Your task to perform on an android device: open app "McDonald's" (install if not already installed) and enter user name: "copes@yahoo.com" and password: "Rhenish" Image 0: 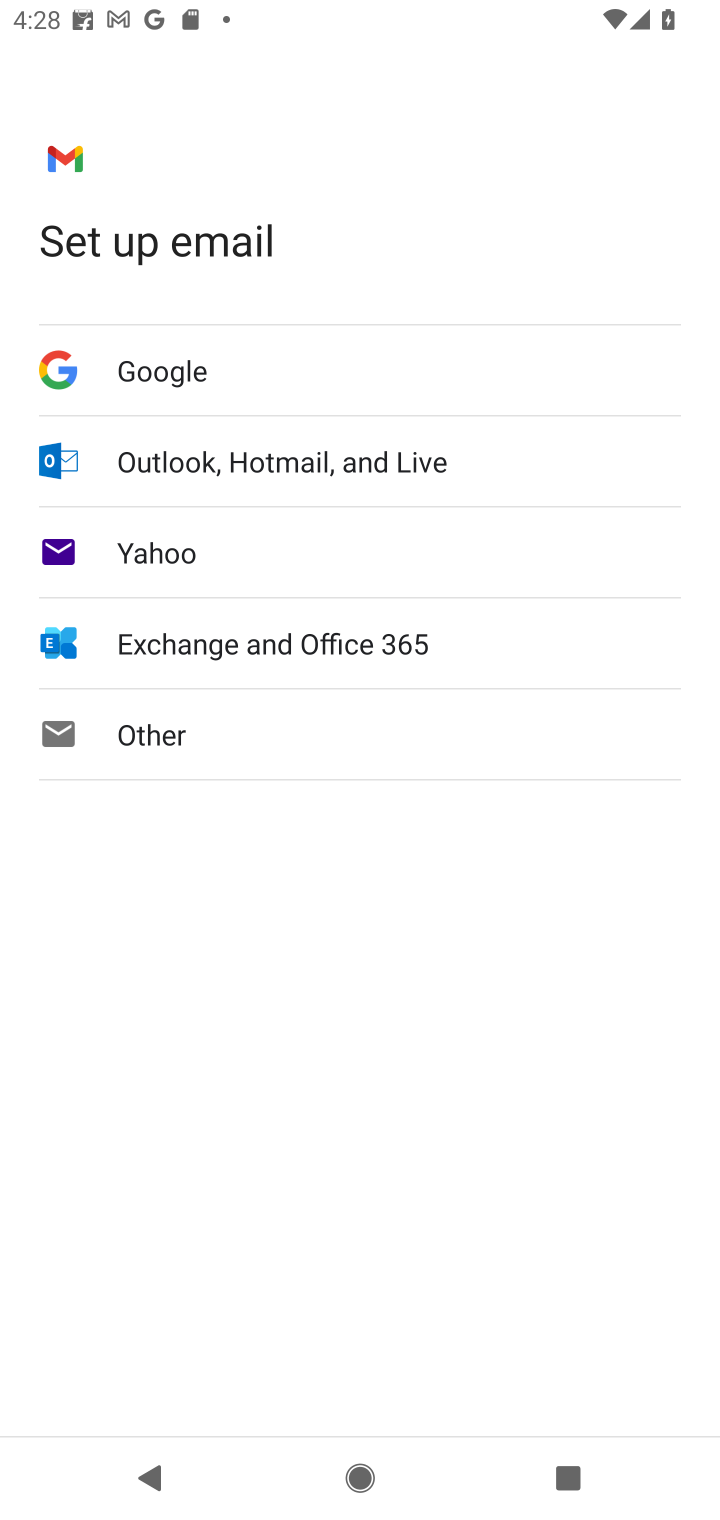
Step 0: press back button
Your task to perform on an android device: open app "McDonald's" (install if not already installed) and enter user name: "copes@yahoo.com" and password: "Rhenish" Image 1: 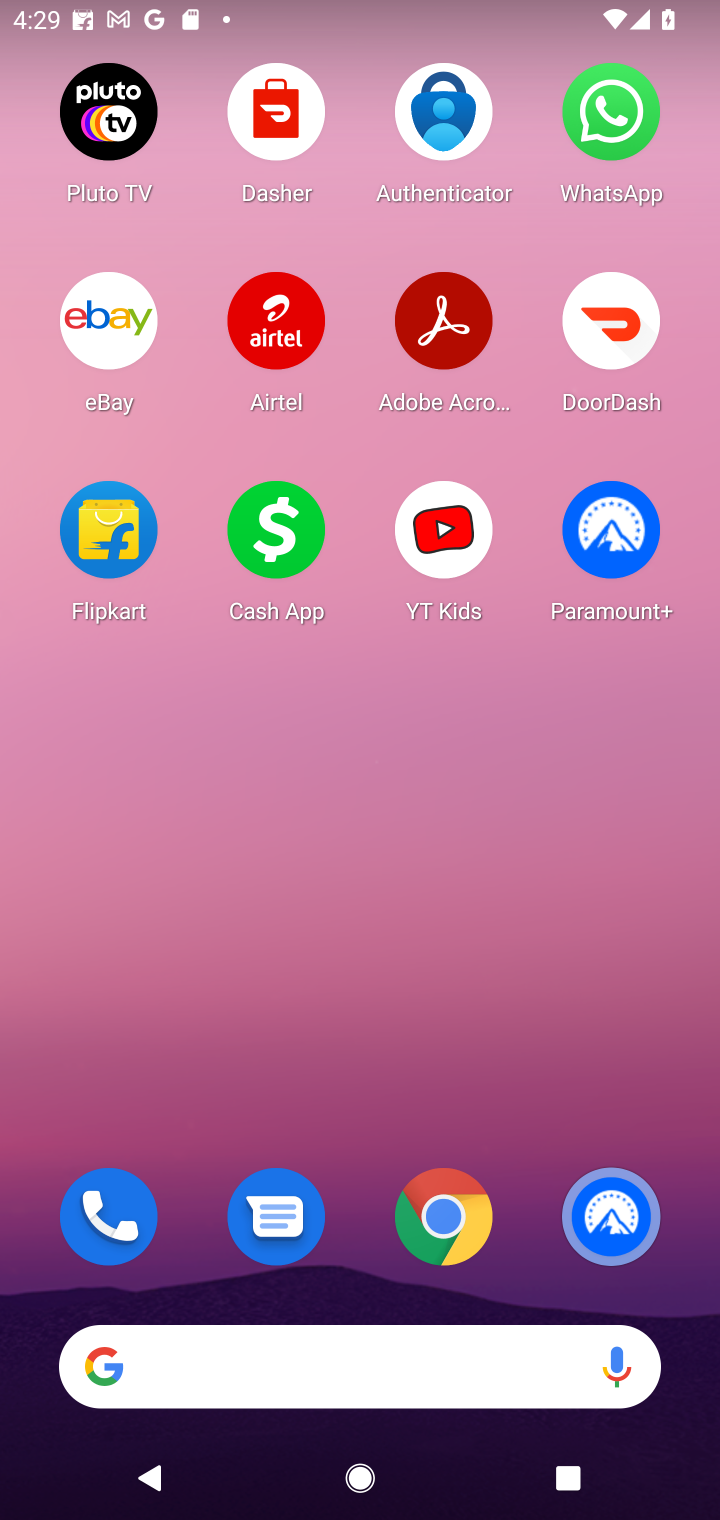
Step 1: drag from (344, 916) to (373, 131)
Your task to perform on an android device: open app "McDonald's" (install if not already installed) and enter user name: "copes@yahoo.com" and password: "Rhenish" Image 2: 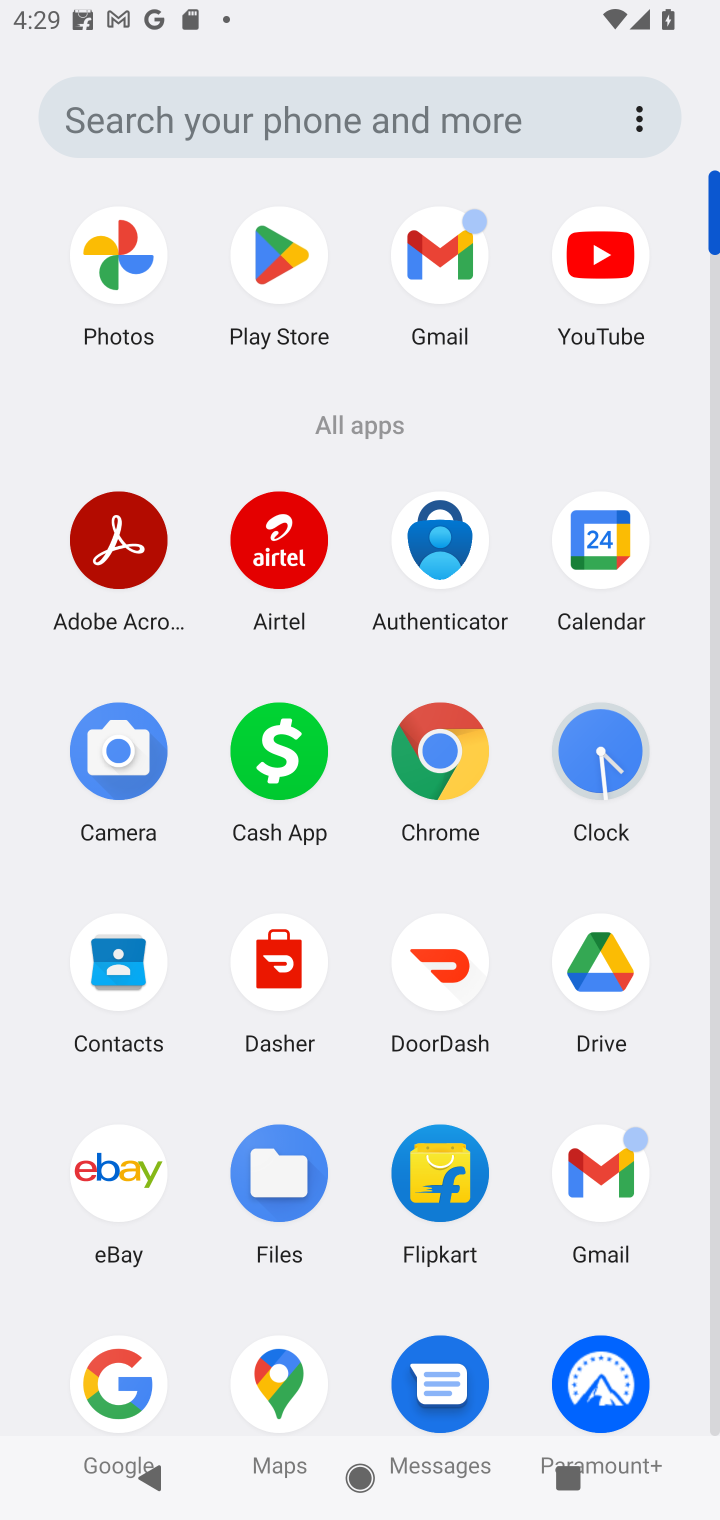
Step 2: click (291, 246)
Your task to perform on an android device: open app "McDonald's" (install if not already installed) and enter user name: "copes@yahoo.com" and password: "Rhenish" Image 3: 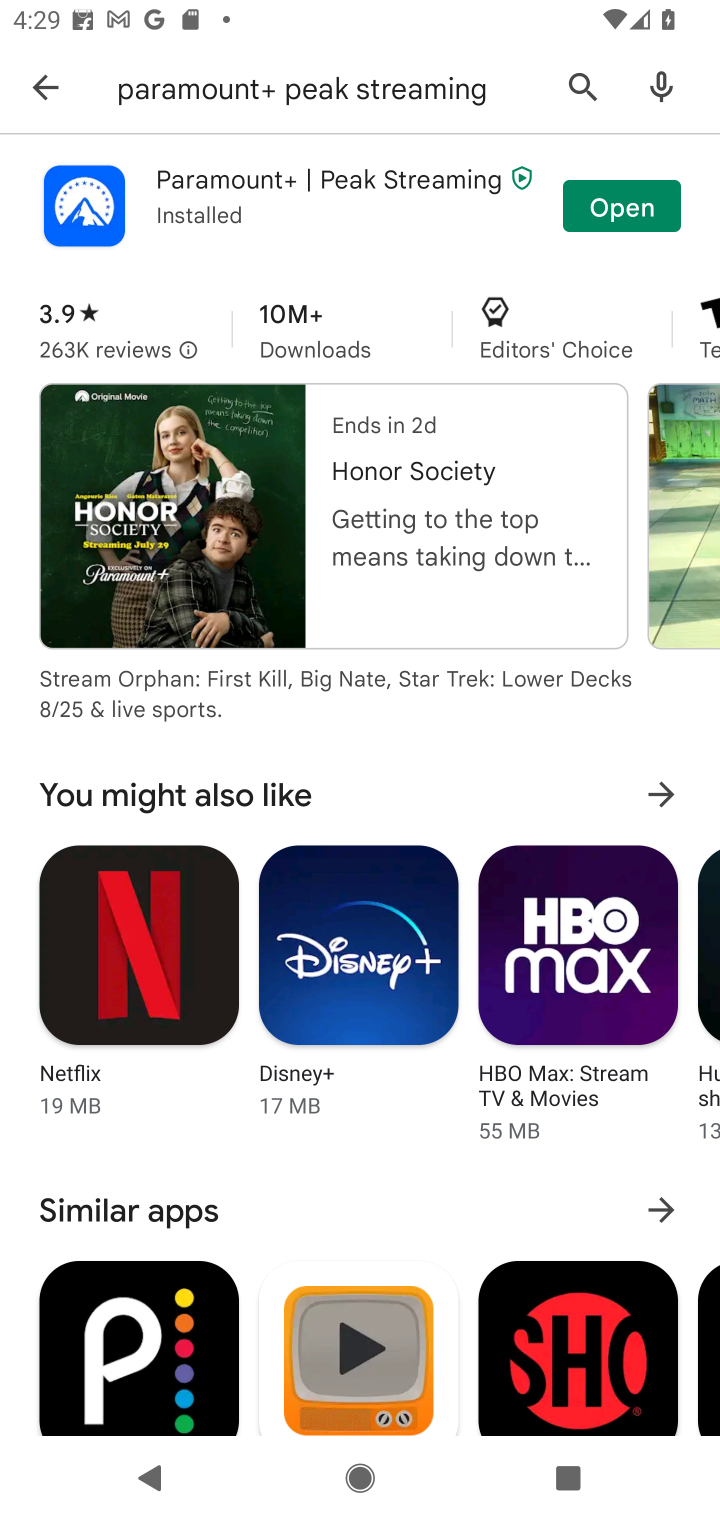
Step 3: click (565, 80)
Your task to perform on an android device: open app "McDonald's" (install if not already installed) and enter user name: "copes@yahoo.com" and password: "Rhenish" Image 4: 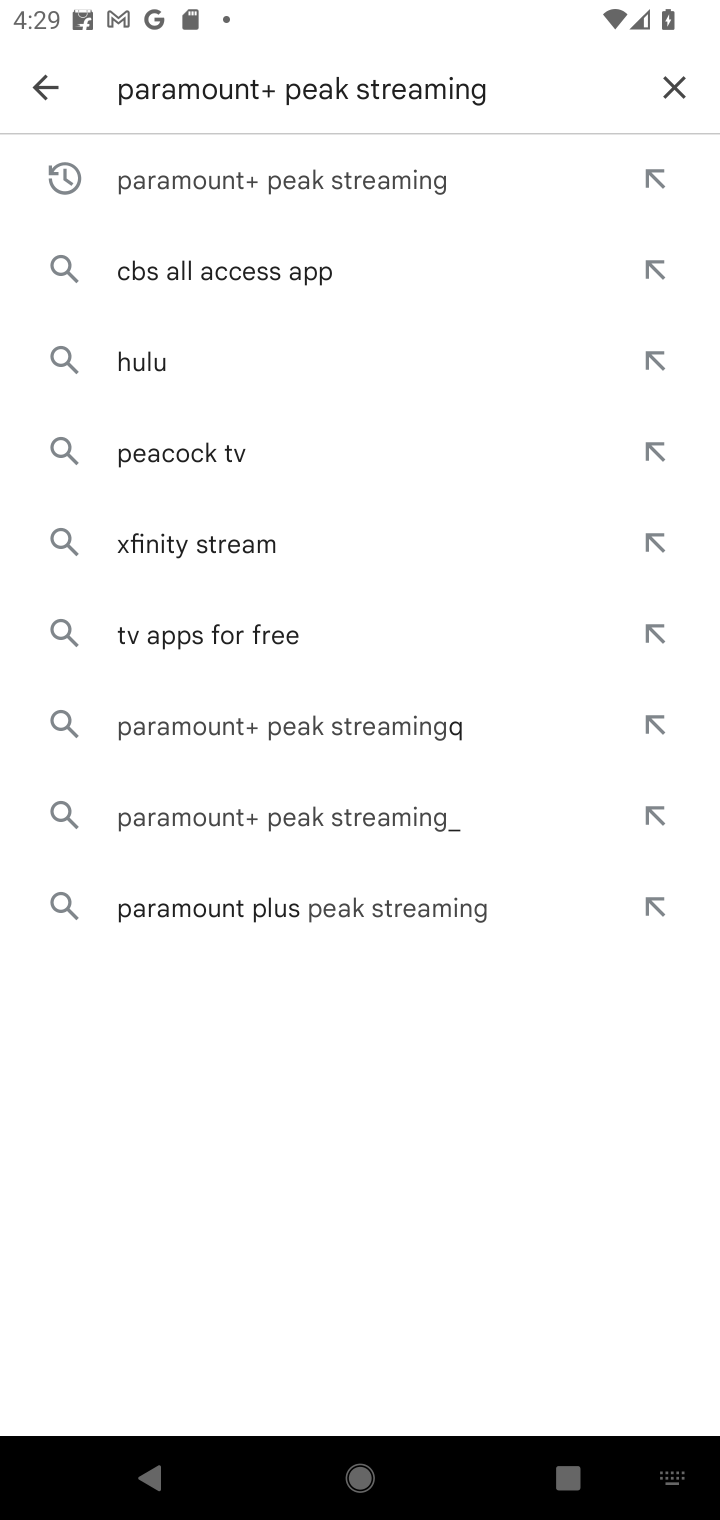
Step 4: click (658, 67)
Your task to perform on an android device: open app "McDonald's" (install if not already installed) and enter user name: "copes@yahoo.com" and password: "Rhenish" Image 5: 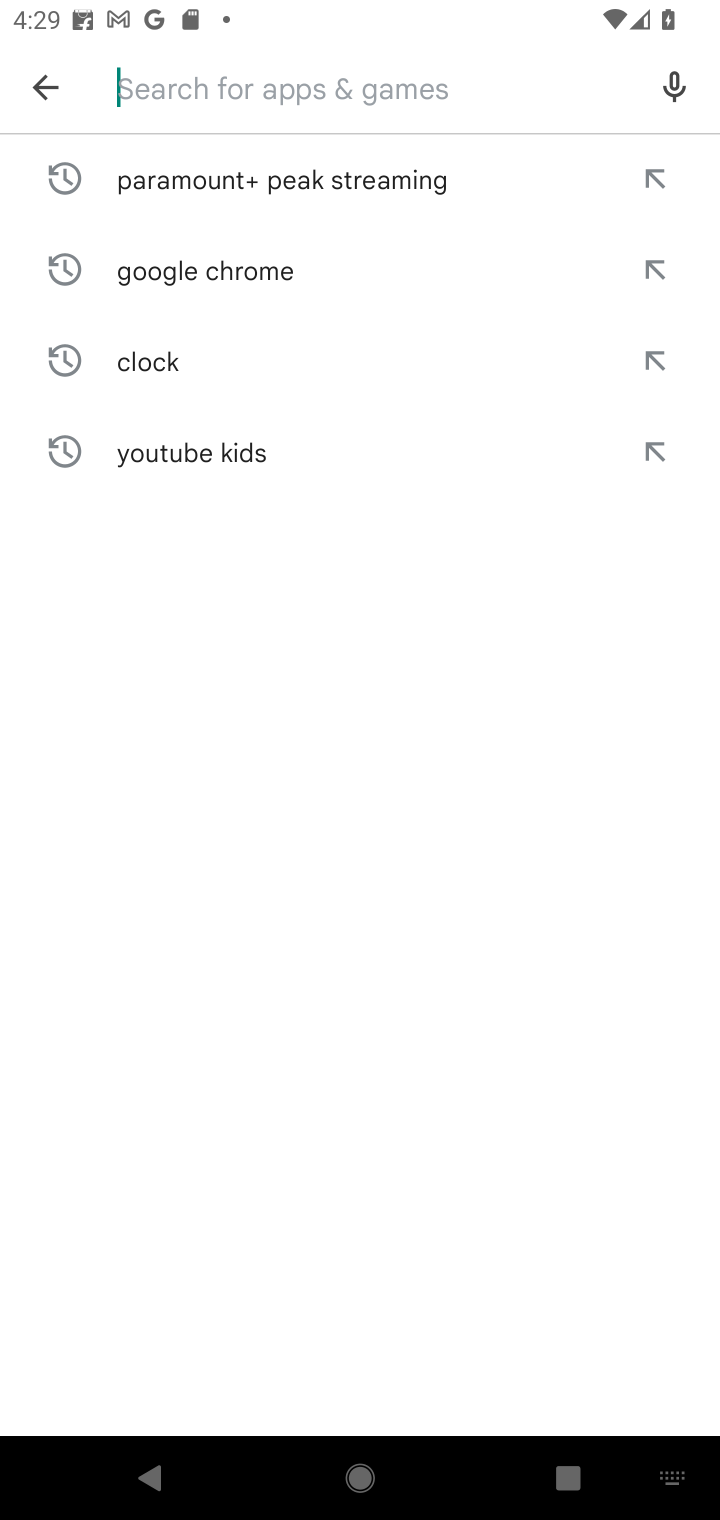
Step 5: type "McDonald's"
Your task to perform on an android device: open app "McDonald's" (install if not already installed) and enter user name: "copes@yahoo.com" and password: "Rhenish" Image 6: 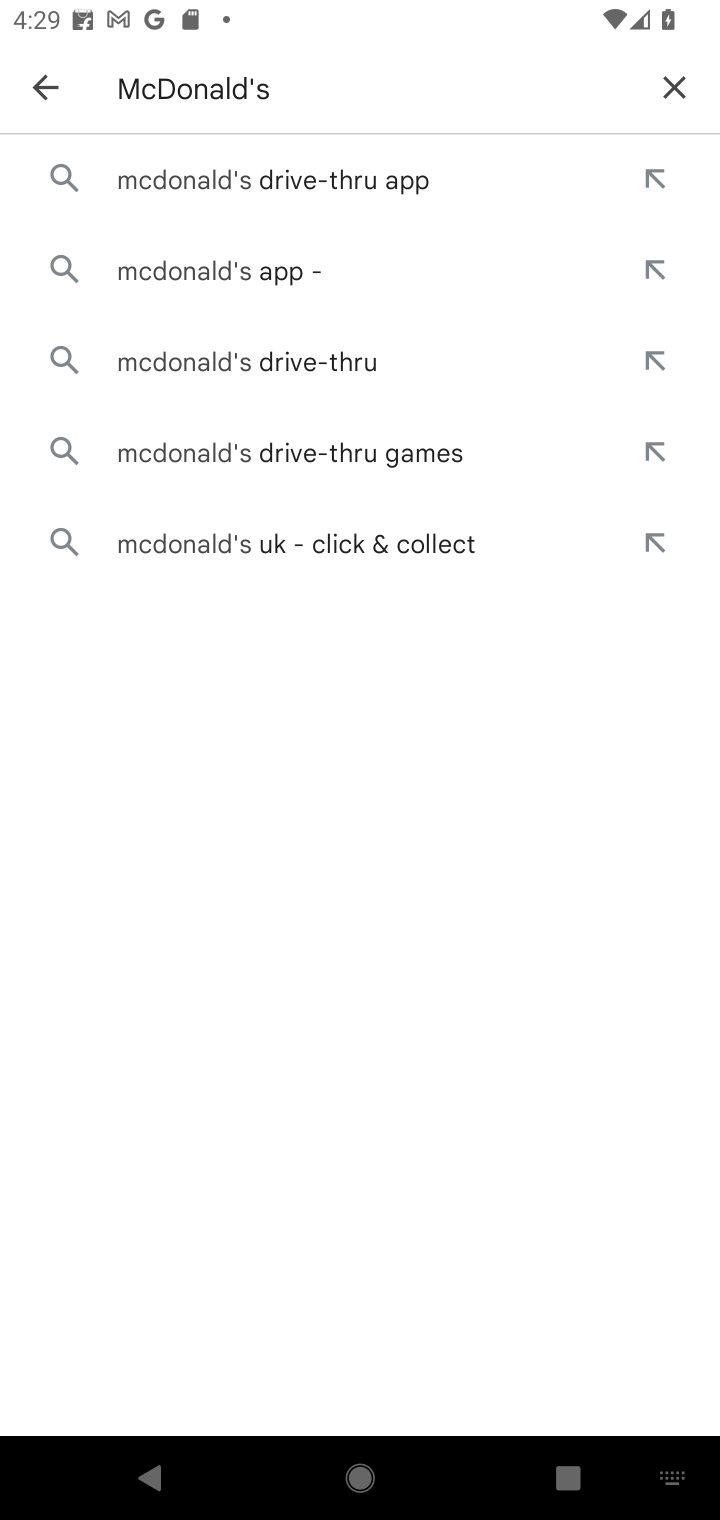
Step 6: click (294, 201)
Your task to perform on an android device: open app "McDonald's" (install if not already installed) and enter user name: "copes@yahoo.com" and password: "Rhenish" Image 7: 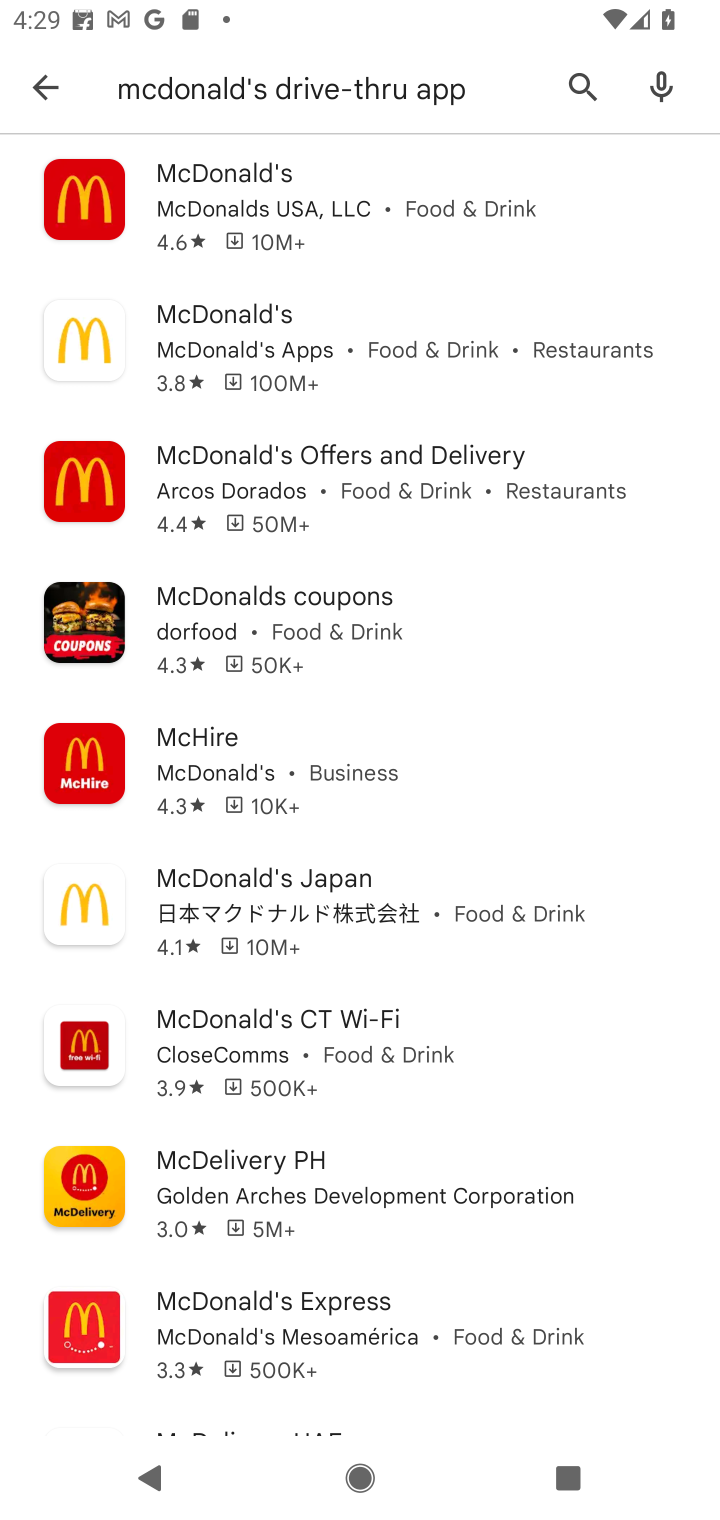
Step 7: click (294, 201)
Your task to perform on an android device: open app "McDonald's" (install if not already installed) and enter user name: "copes@yahoo.com" and password: "Rhenish" Image 8: 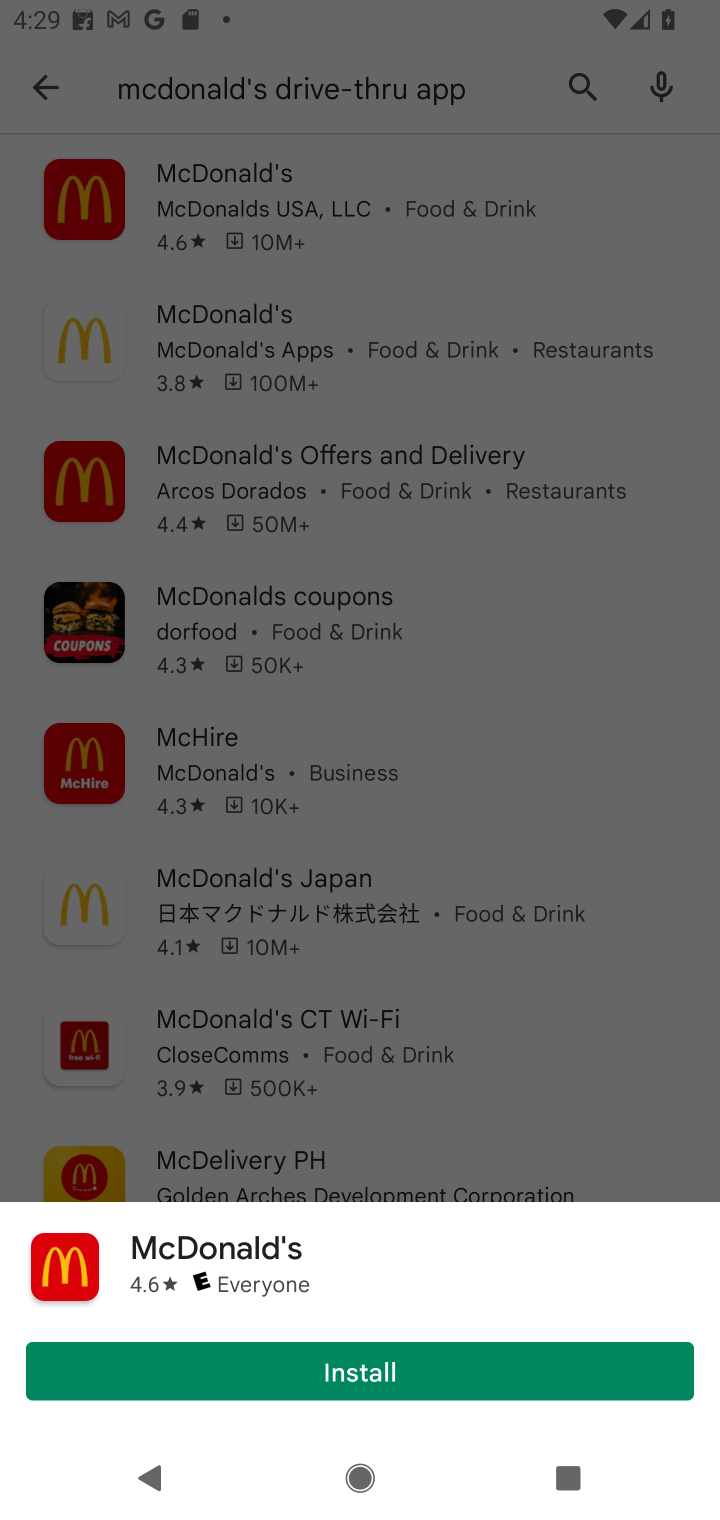
Step 8: click (421, 1372)
Your task to perform on an android device: open app "McDonald's" (install if not already installed) and enter user name: "copes@yahoo.com" and password: "Rhenish" Image 9: 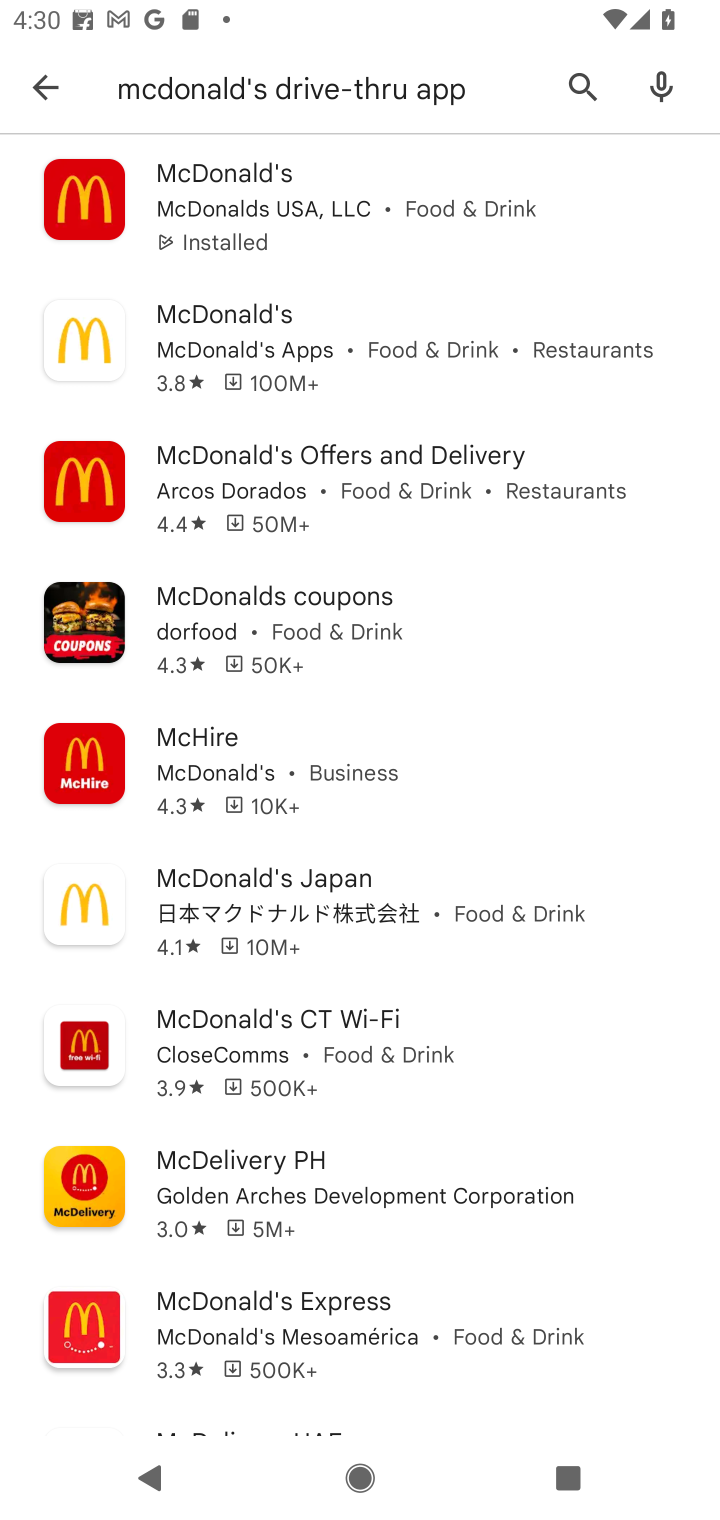
Step 9: click (318, 246)
Your task to perform on an android device: open app "McDonald's" (install if not already installed) and enter user name: "copes@yahoo.com" and password: "Rhenish" Image 10: 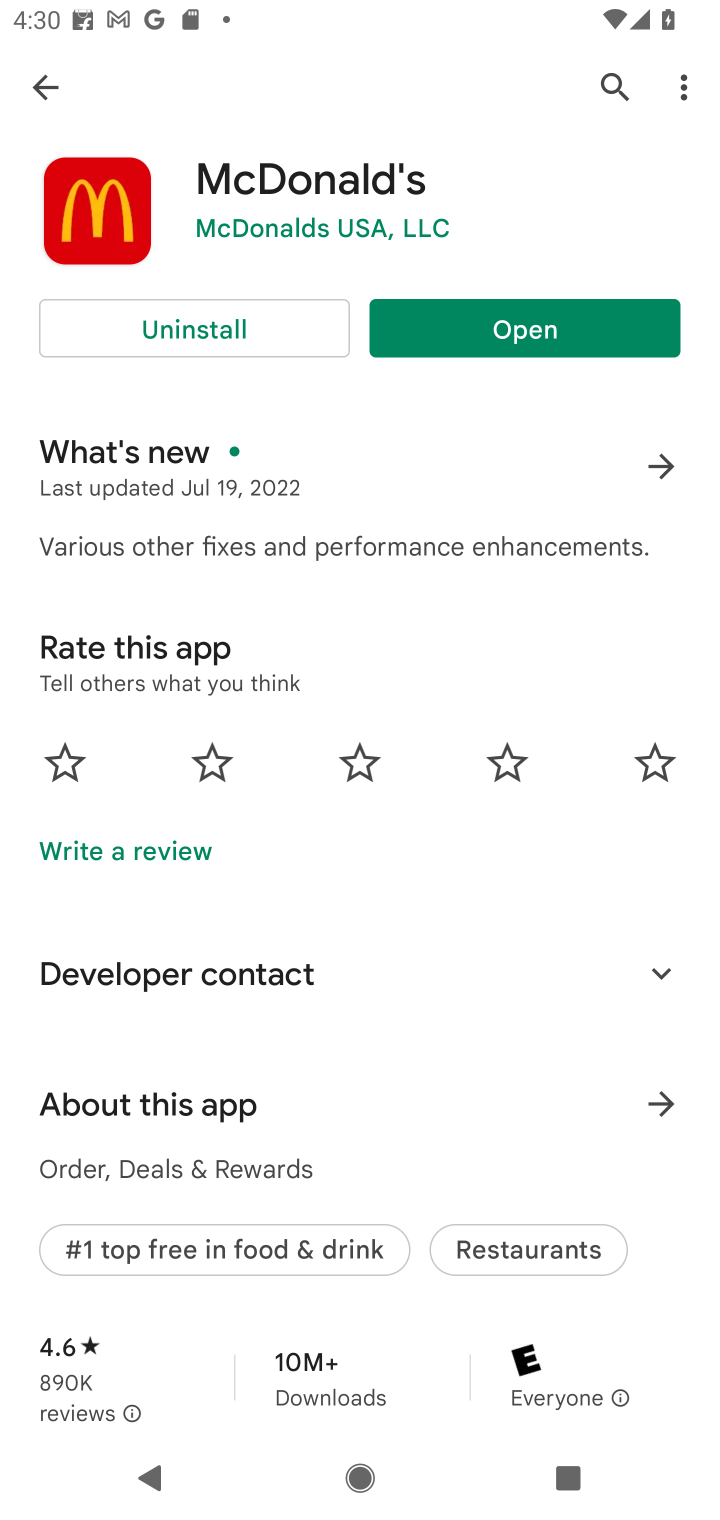
Step 10: click (524, 339)
Your task to perform on an android device: open app "McDonald's" (install if not already installed) and enter user name: "copes@yahoo.com" and password: "Rhenish" Image 11: 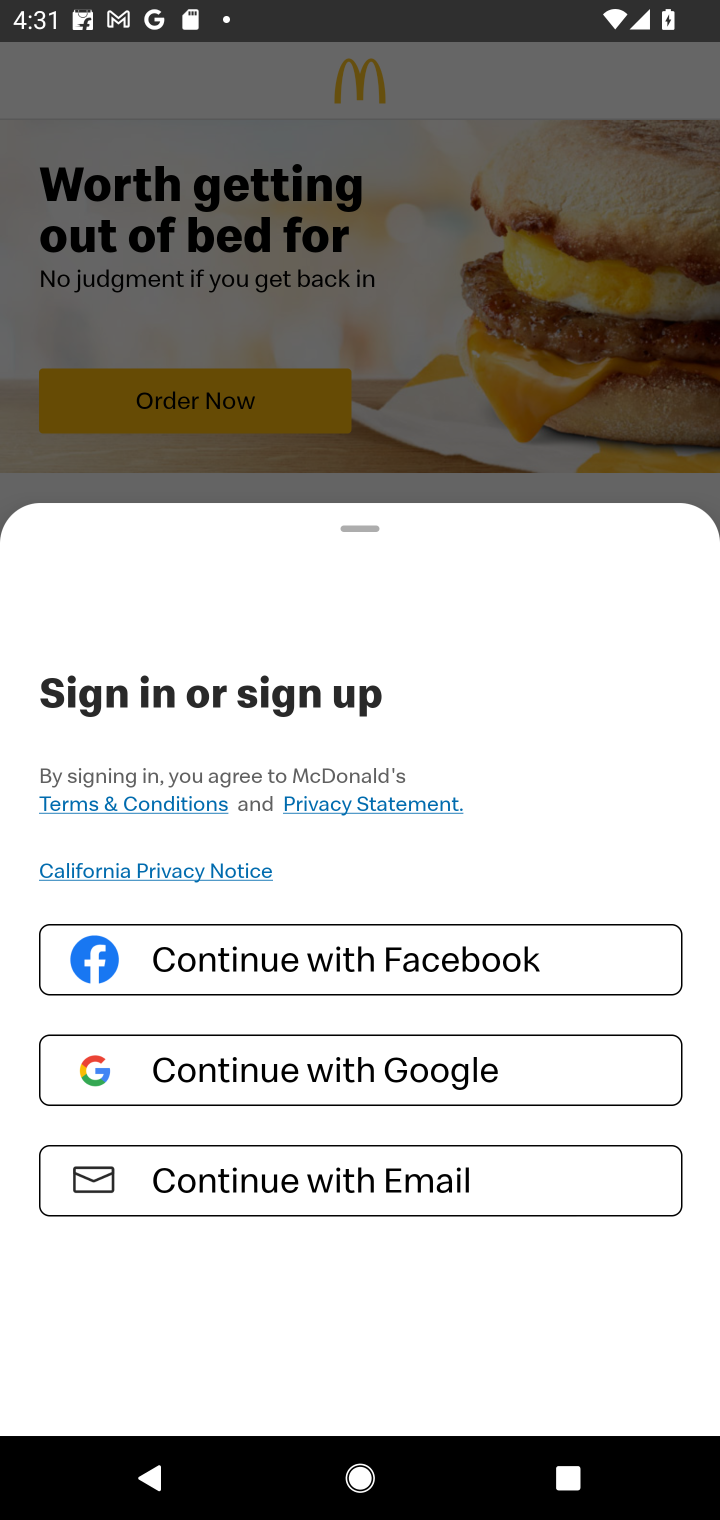
Step 11: task complete